Your task to perform on an android device: Clear all items from cart on ebay.com. Add razer thresher to the cart on ebay.com, then select checkout. Image 0: 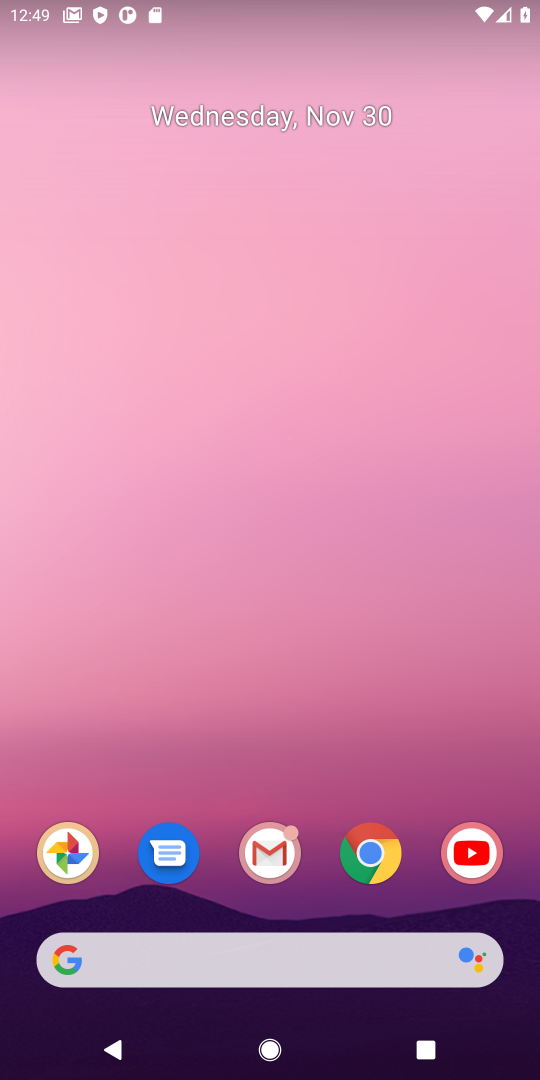
Step 0: click (371, 868)
Your task to perform on an android device: Clear all items from cart on ebay.com. Add razer thresher to the cart on ebay.com, then select checkout. Image 1: 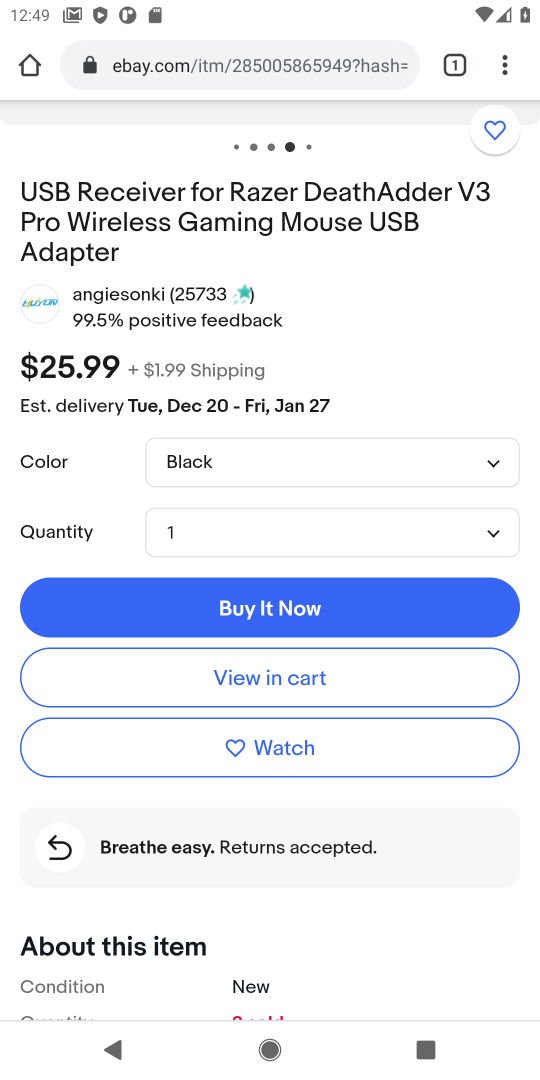
Step 1: drag from (391, 360) to (365, 860)
Your task to perform on an android device: Clear all items from cart on ebay.com. Add razer thresher to the cart on ebay.com, then select checkout. Image 2: 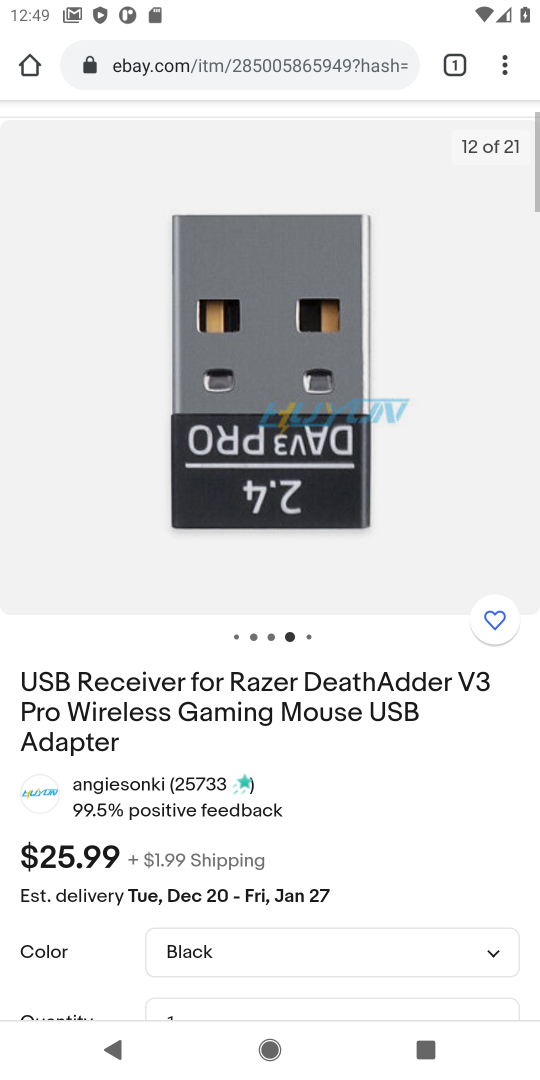
Step 2: drag from (447, 275) to (398, 743)
Your task to perform on an android device: Clear all items from cart on ebay.com. Add razer thresher to the cart on ebay.com, then select checkout. Image 3: 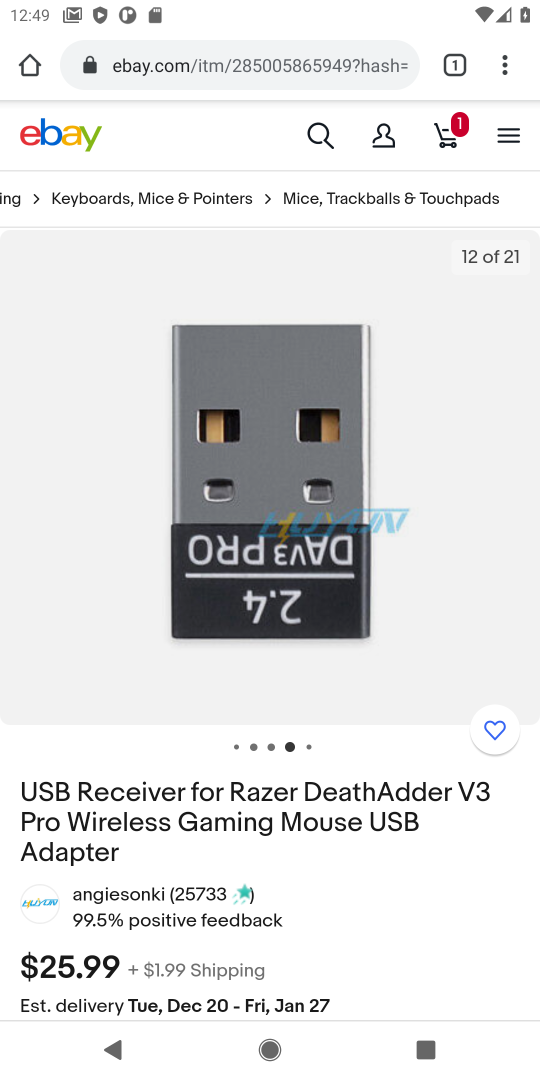
Step 3: click (451, 138)
Your task to perform on an android device: Clear all items from cart on ebay.com. Add razer thresher to the cart on ebay.com, then select checkout. Image 4: 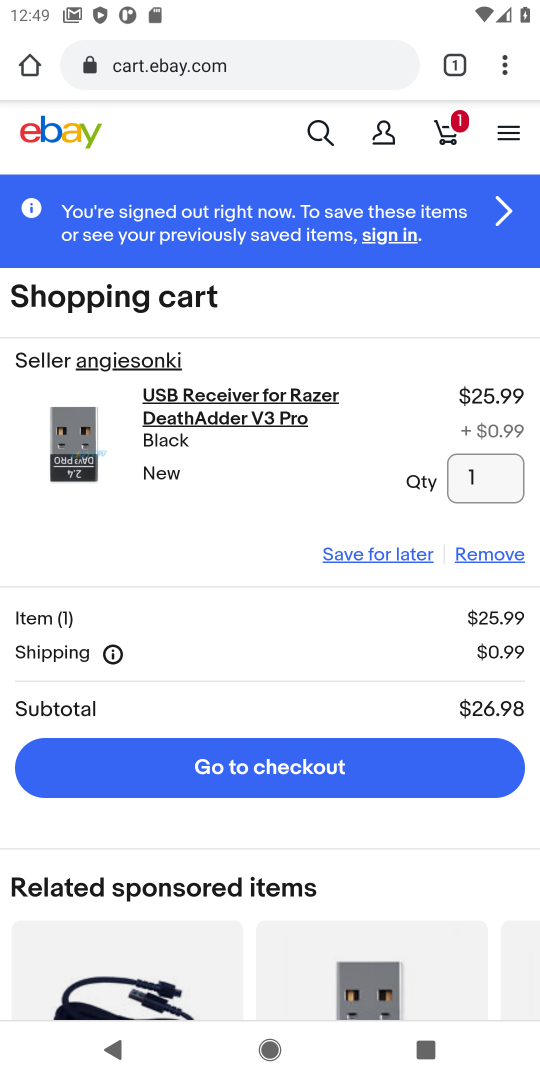
Step 4: click (487, 552)
Your task to perform on an android device: Clear all items from cart on ebay.com. Add razer thresher to the cart on ebay.com, then select checkout. Image 5: 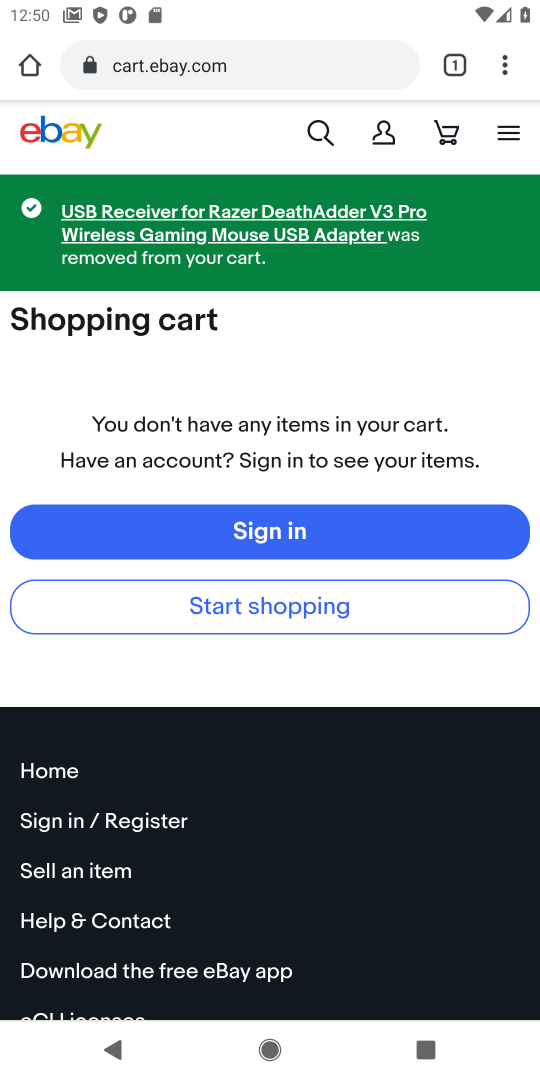
Step 5: click (314, 128)
Your task to perform on an android device: Clear all items from cart on ebay.com. Add razer thresher to the cart on ebay.com, then select checkout. Image 6: 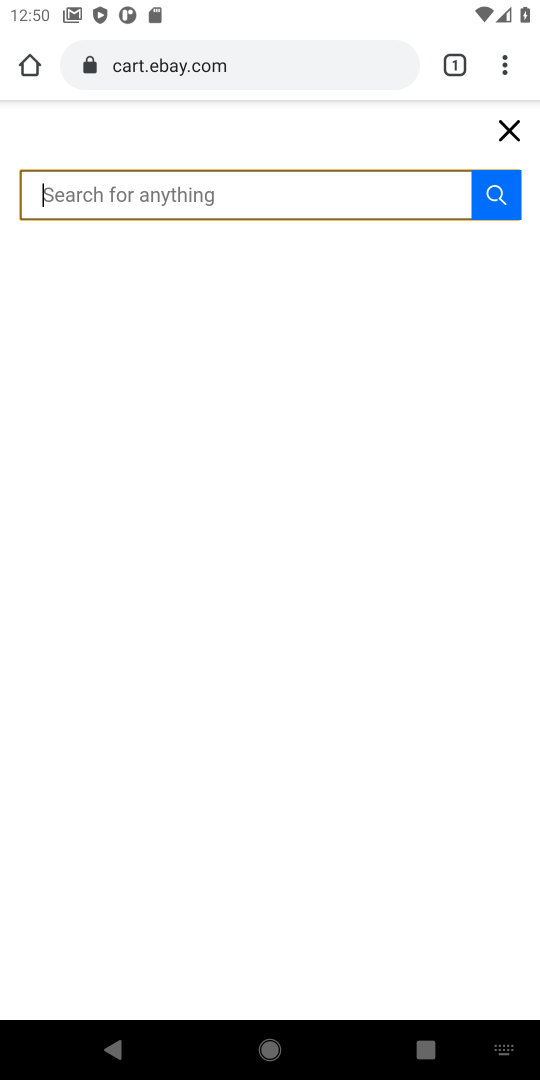
Step 6: type " razer thresher"
Your task to perform on an android device: Clear all items from cart on ebay.com. Add razer thresher to the cart on ebay.com, then select checkout. Image 7: 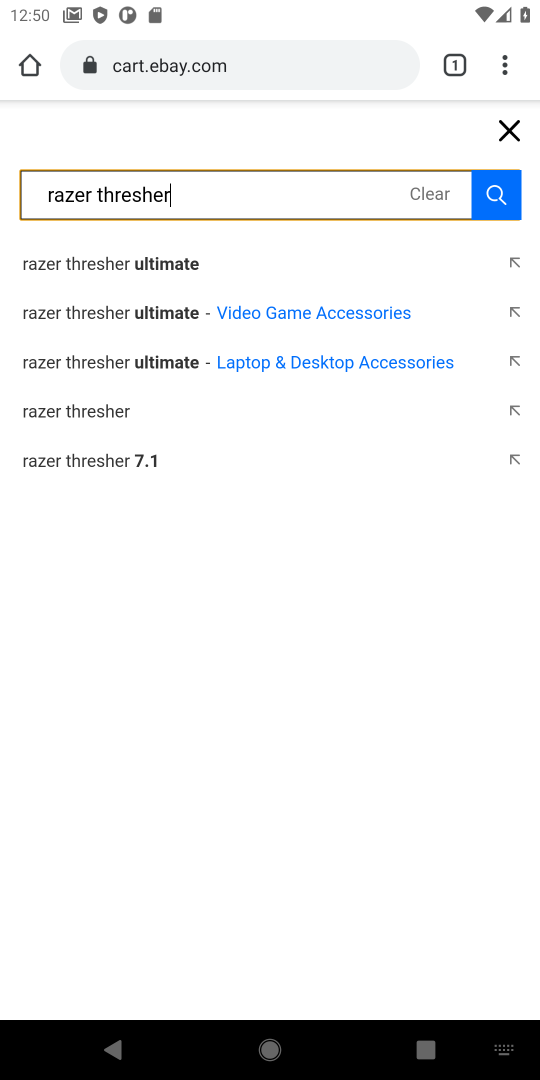
Step 7: click (97, 409)
Your task to perform on an android device: Clear all items from cart on ebay.com. Add razer thresher to the cart on ebay.com, then select checkout. Image 8: 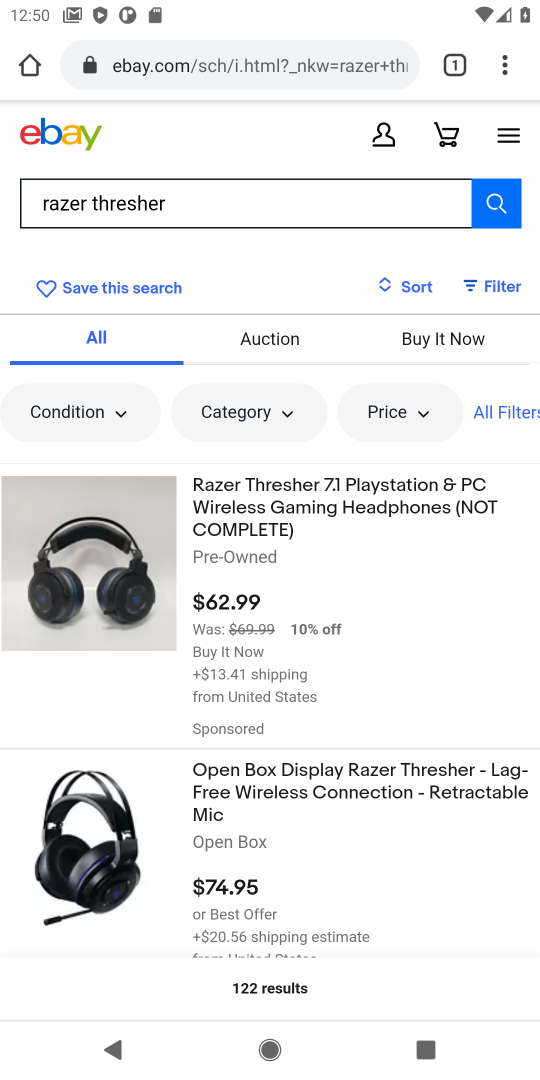
Step 8: click (246, 523)
Your task to perform on an android device: Clear all items from cart on ebay.com. Add razer thresher to the cart on ebay.com, then select checkout. Image 9: 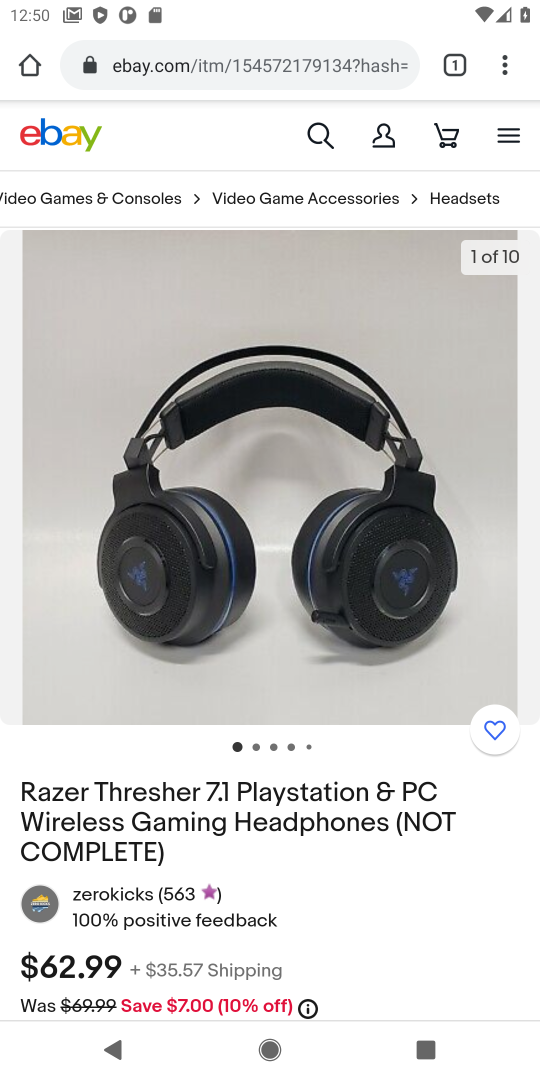
Step 9: drag from (272, 873) to (282, 442)
Your task to perform on an android device: Clear all items from cart on ebay.com. Add razer thresher to the cart on ebay.com, then select checkout. Image 10: 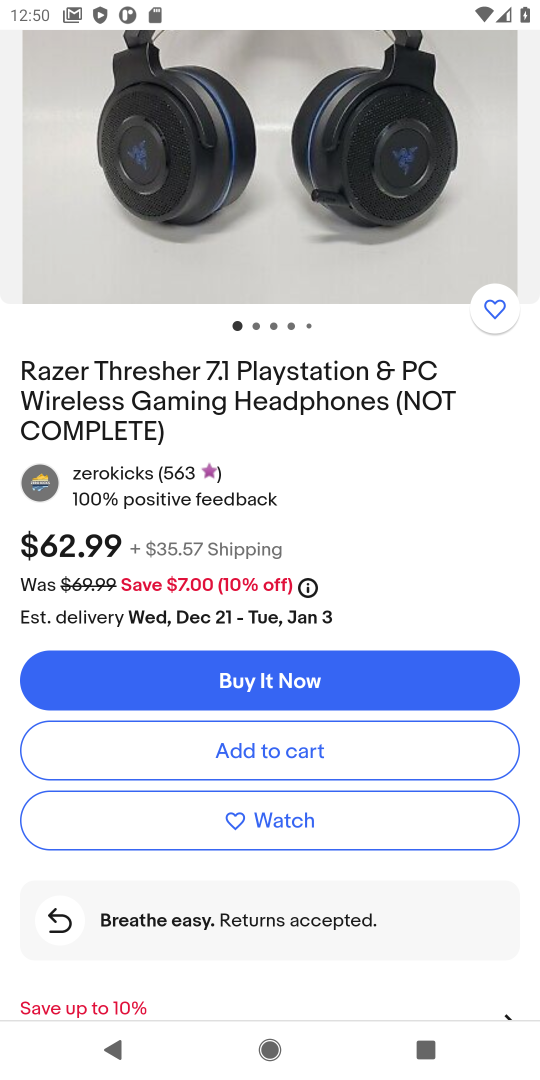
Step 10: click (245, 749)
Your task to perform on an android device: Clear all items from cart on ebay.com. Add razer thresher to the cart on ebay.com, then select checkout. Image 11: 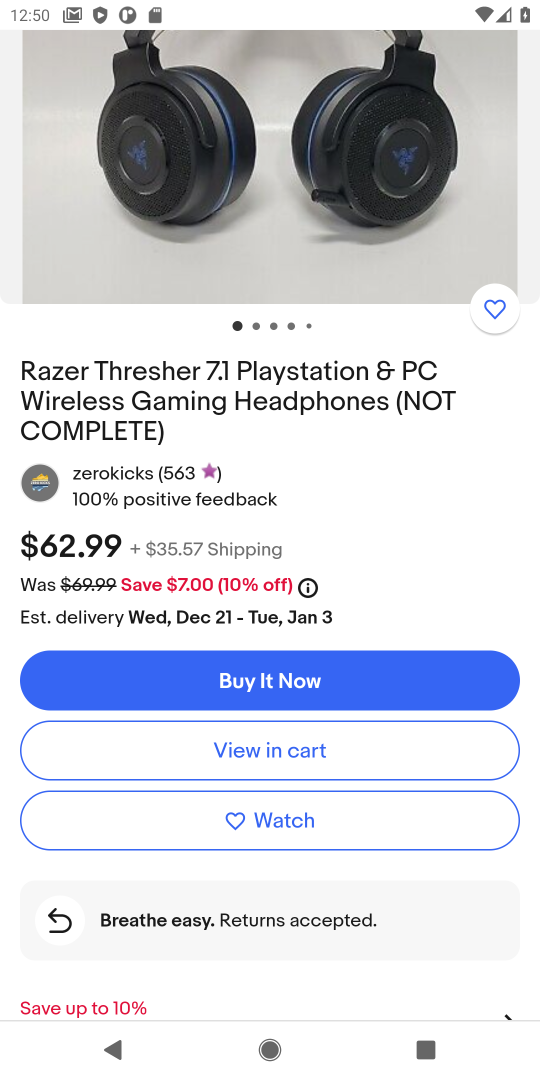
Step 11: click (245, 749)
Your task to perform on an android device: Clear all items from cart on ebay.com. Add razer thresher to the cart on ebay.com, then select checkout. Image 12: 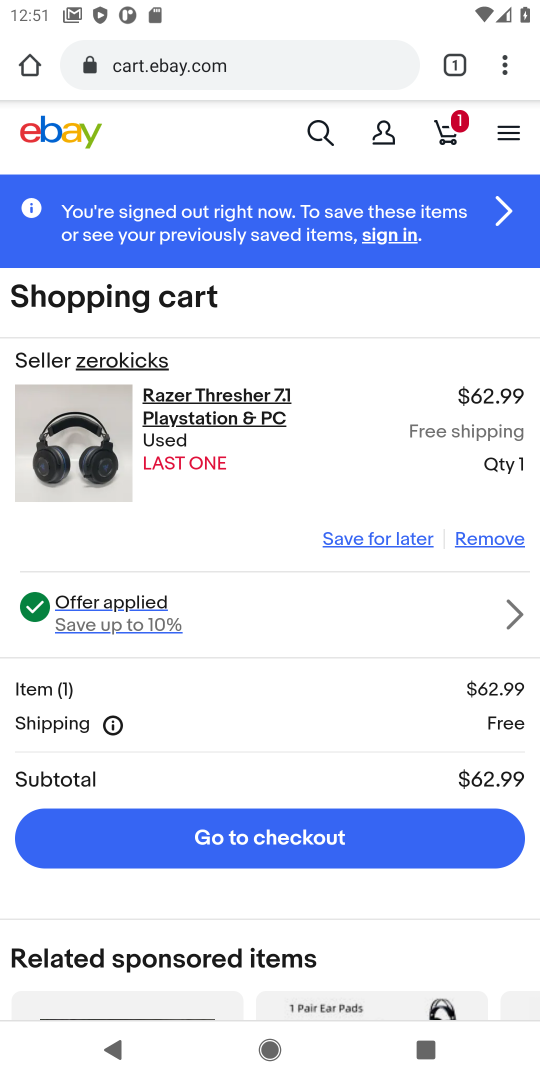
Step 12: click (274, 834)
Your task to perform on an android device: Clear all items from cart on ebay.com. Add razer thresher to the cart on ebay.com, then select checkout. Image 13: 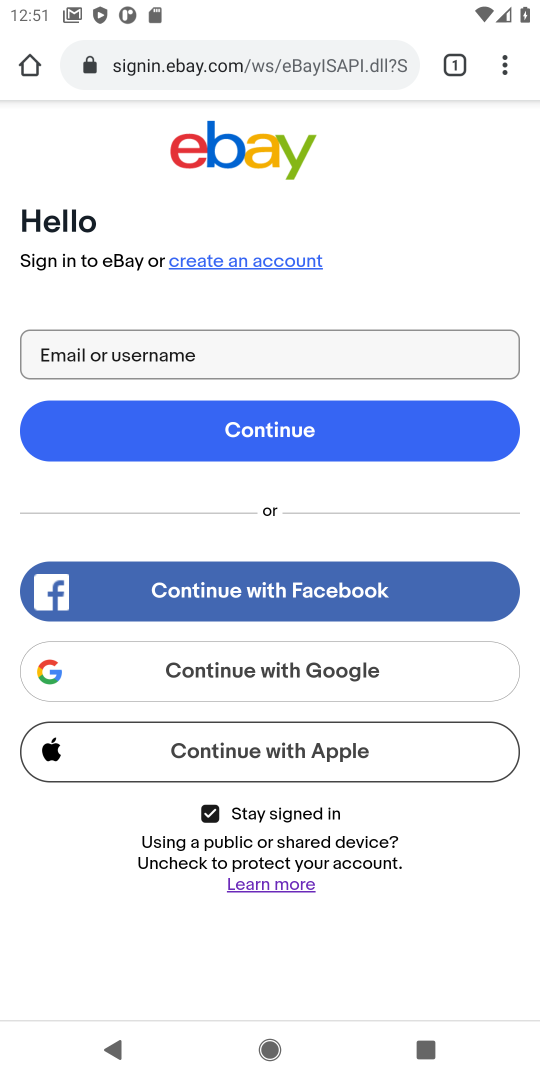
Step 13: task complete